Your task to perform on an android device: turn on the 12-hour format for clock Image 0: 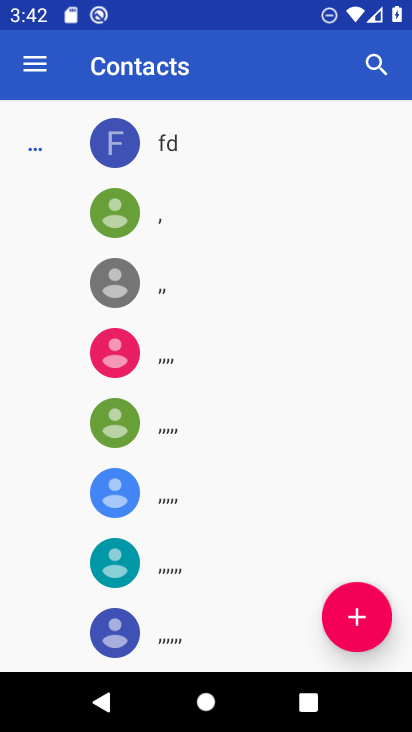
Step 0: press home button
Your task to perform on an android device: turn on the 12-hour format for clock Image 1: 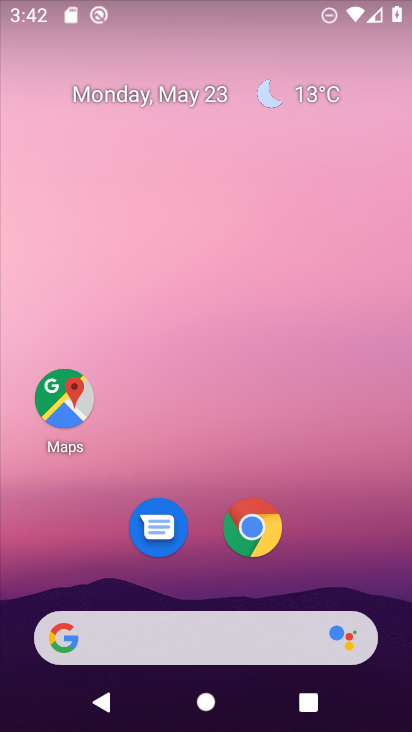
Step 1: drag from (207, 587) to (247, 102)
Your task to perform on an android device: turn on the 12-hour format for clock Image 2: 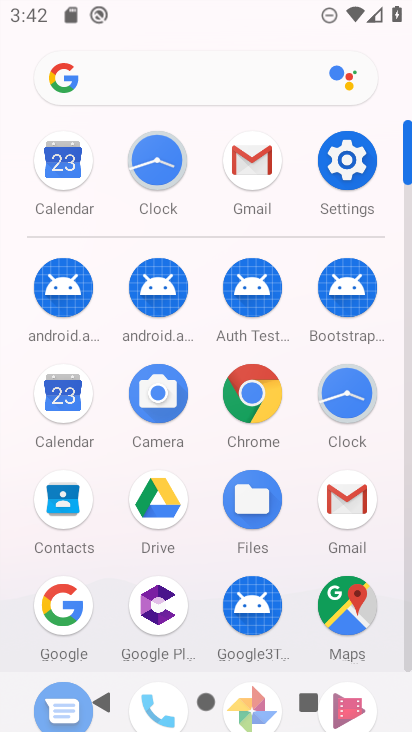
Step 2: click (154, 148)
Your task to perform on an android device: turn on the 12-hour format for clock Image 3: 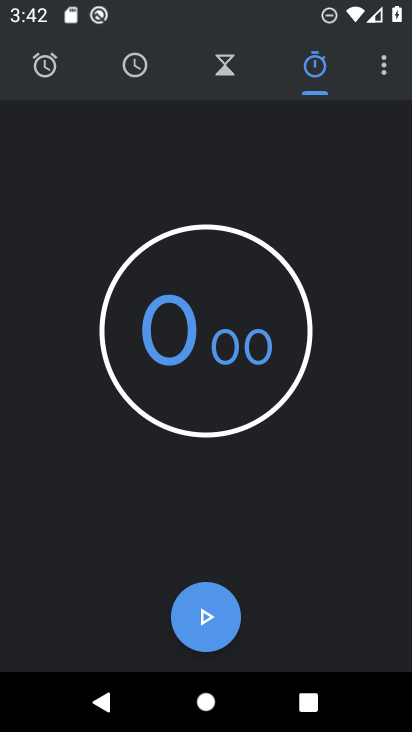
Step 3: click (381, 65)
Your task to perform on an android device: turn on the 12-hour format for clock Image 4: 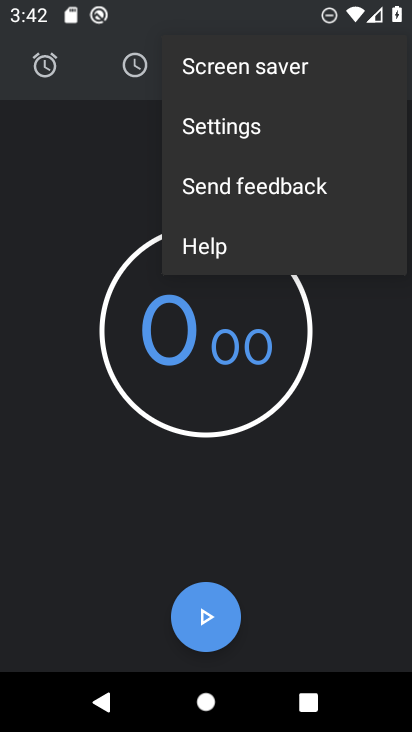
Step 4: click (271, 126)
Your task to perform on an android device: turn on the 12-hour format for clock Image 5: 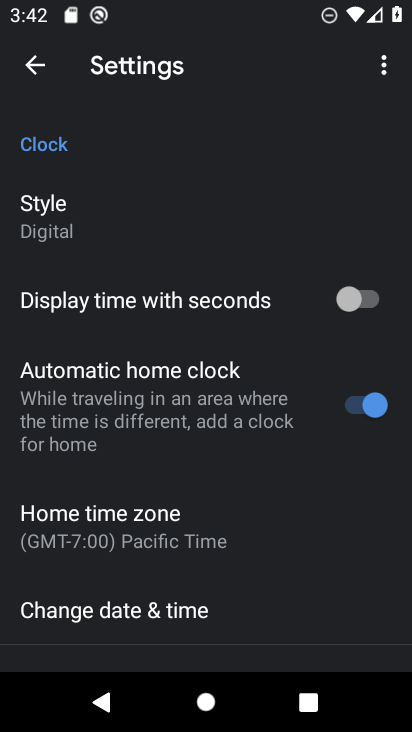
Step 5: click (239, 606)
Your task to perform on an android device: turn on the 12-hour format for clock Image 6: 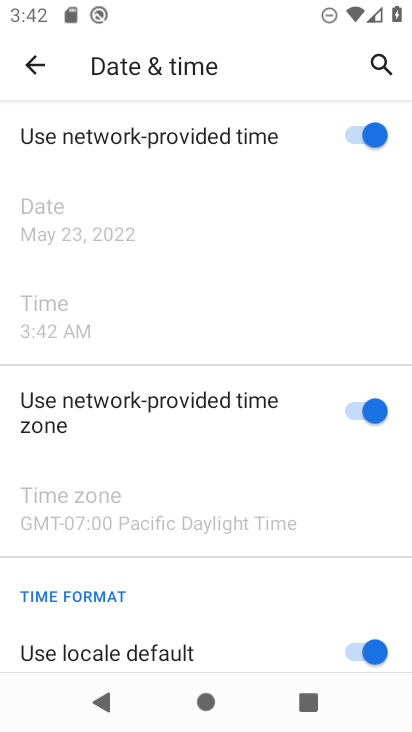
Step 6: task complete